Your task to perform on an android device: check android version Image 0: 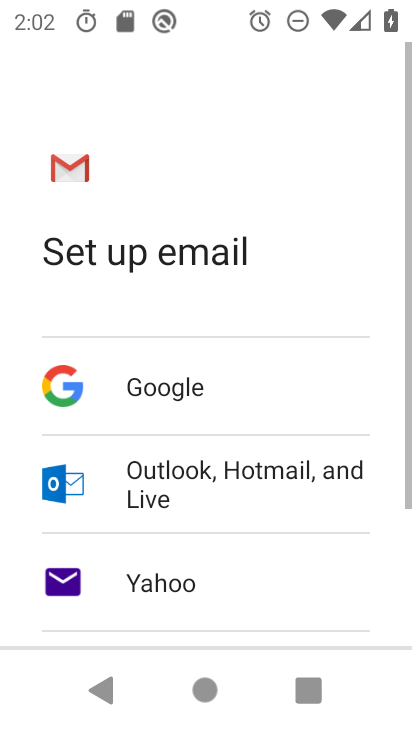
Step 0: press home button
Your task to perform on an android device: check android version Image 1: 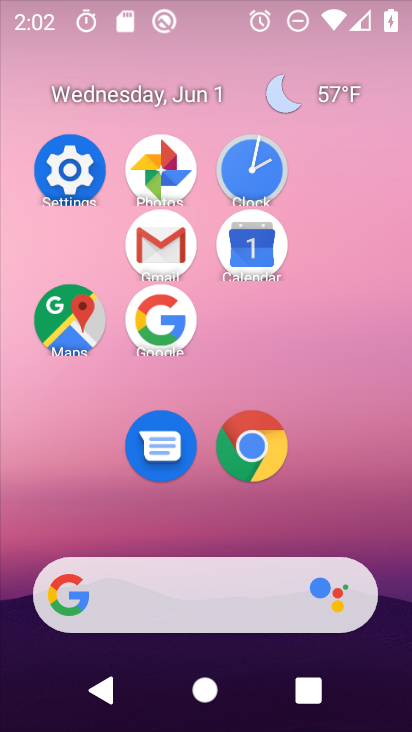
Step 1: click (52, 190)
Your task to perform on an android device: check android version Image 2: 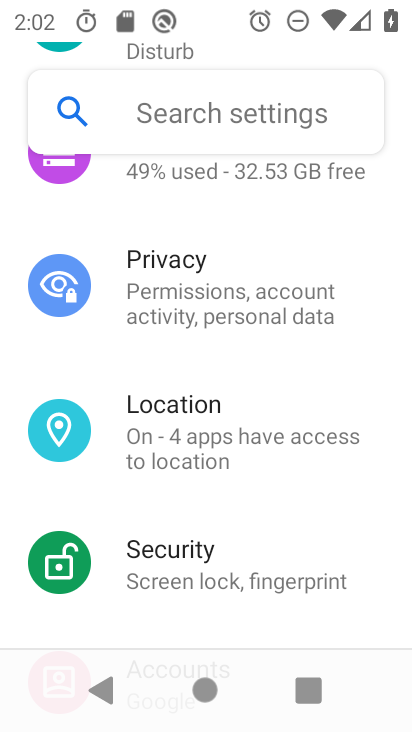
Step 2: drag from (299, 484) to (220, 72)
Your task to perform on an android device: check android version Image 3: 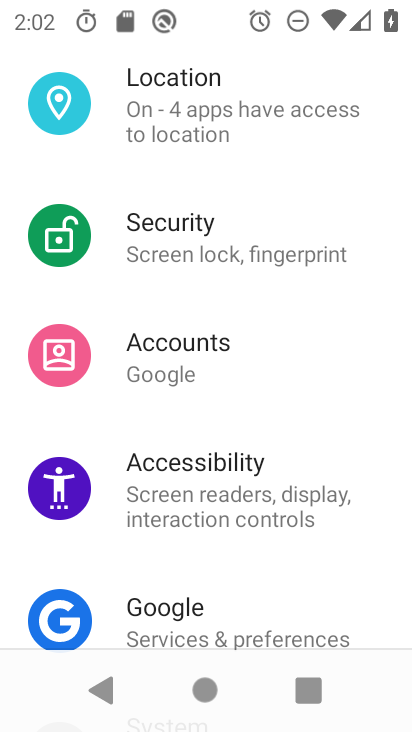
Step 3: drag from (242, 571) to (211, 112)
Your task to perform on an android device: check android version Image 4: 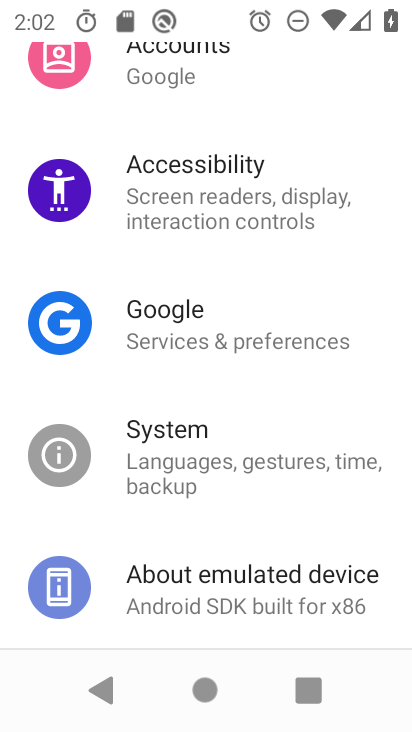
Step 4: click (237, 594)
Your task to perform on an android device: check android version Image 5: 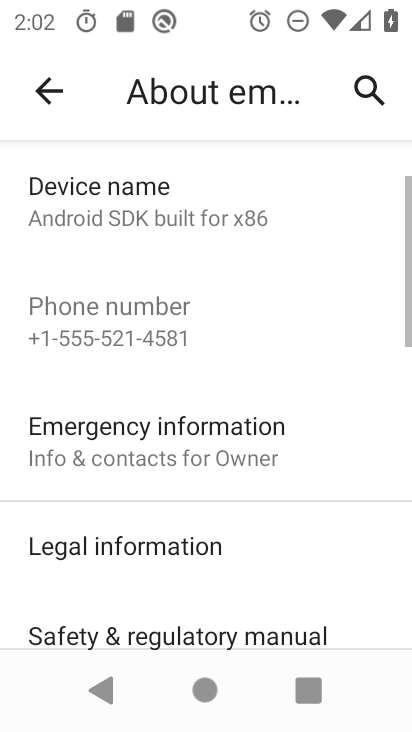
Step 5: drag from (230, 515) to (236, 155)
Your task to perform on an android device: check android version Image 6: 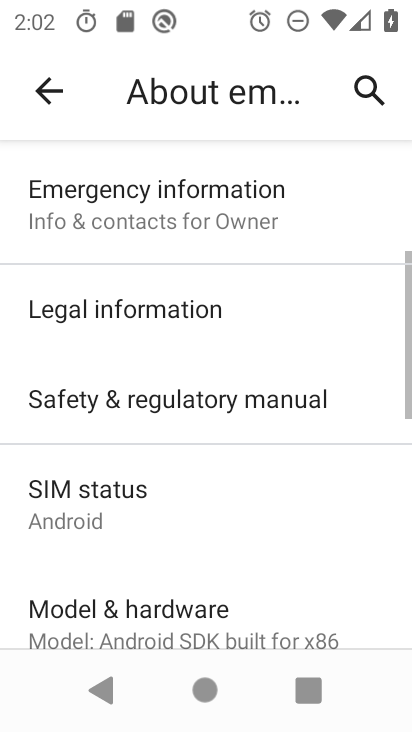
Step 6: drag from (253, 568) to (232, 196)
Your task to perform on an android device: check android version Image 7: 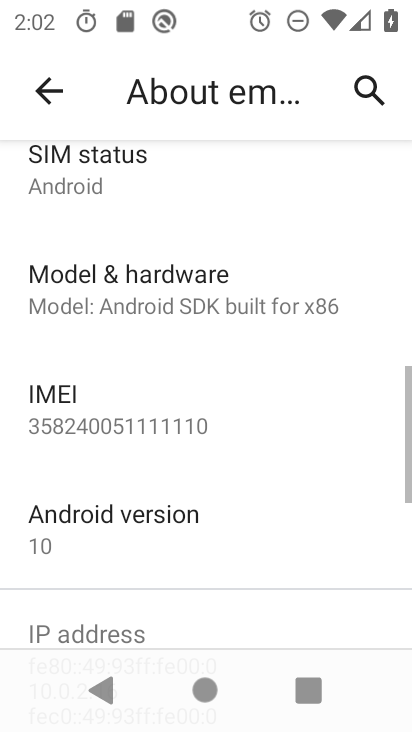
Step 7: click (185, 555)
Your task to perform on an android device: check android version Image 8: 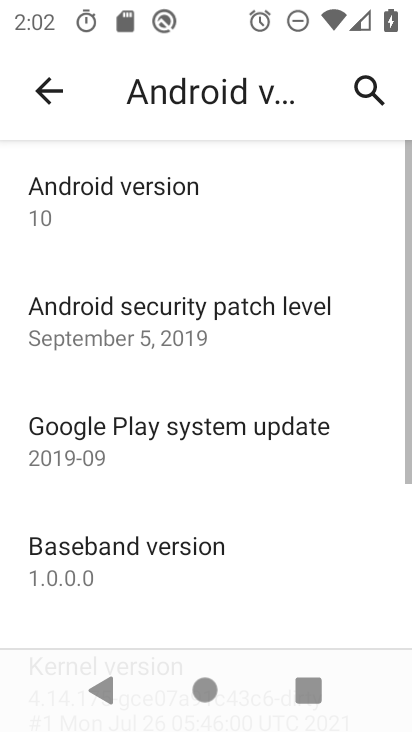
Step 8: task complete